Your task to perform on an android device: Show me productivity apps on the Play Store Image 0: 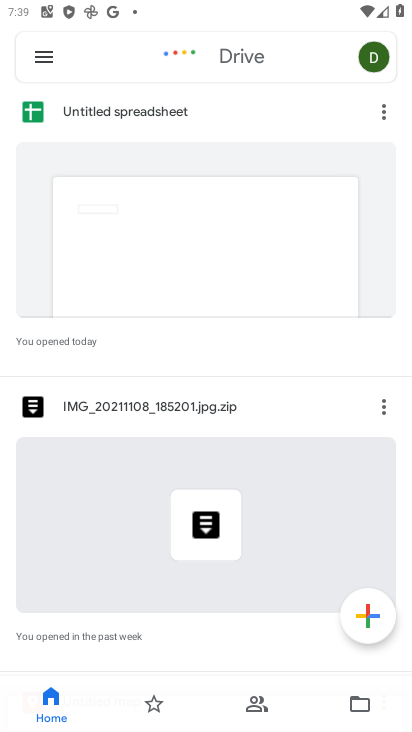
Step 0: press home button
Your task to perform on an android device: Show me productivity apps on the Play Store Image 1: 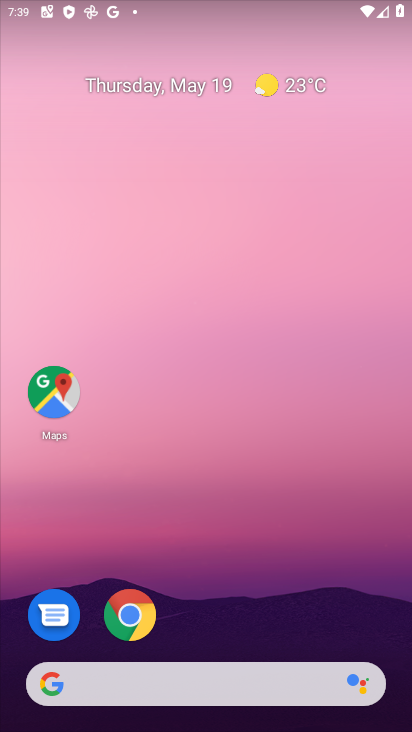
Step 1: drag from (312, 624) to (266, 146)
Your task to perform on an android device: Show me productivity apps on the Play Store Image 2: 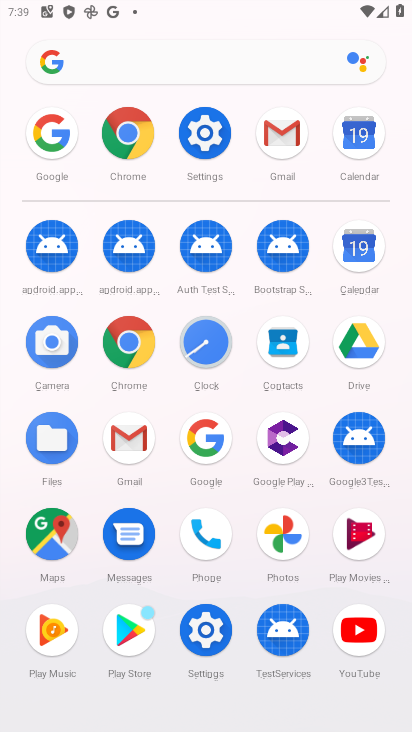
Step 2: click (140, 645)
Your task to perform on an android device: Show me productivity apps on the Play Store Image 3: 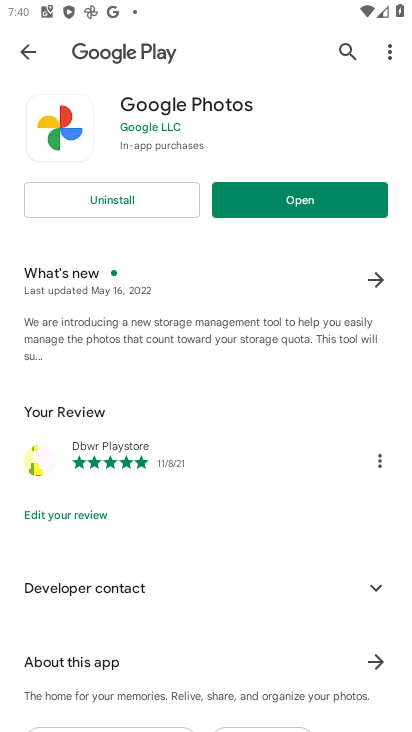
Step 3: press back button
Your task to perform on an android device: Show me productivity apps on the Play Store Image 4: 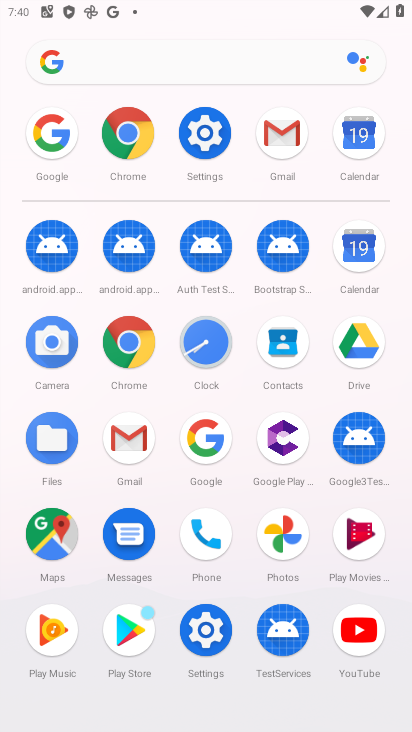
Step 4: click (137, 616)
Your task to perform on an android device: Show me productivity apps on the Play Store Image 5: 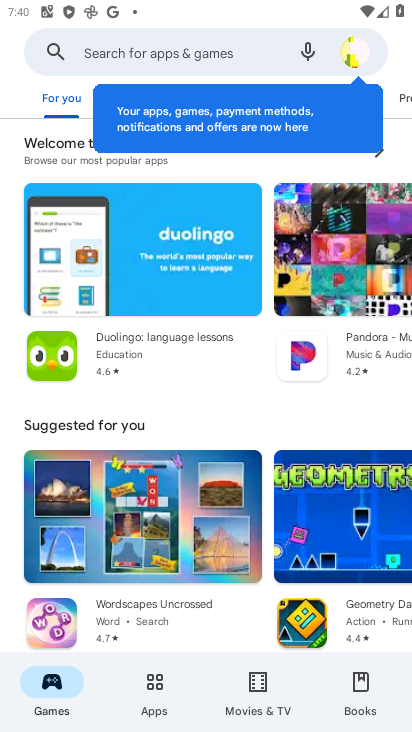
Step 5: task complete